Your task to perform on an android device: Go to battery settings Image 0: 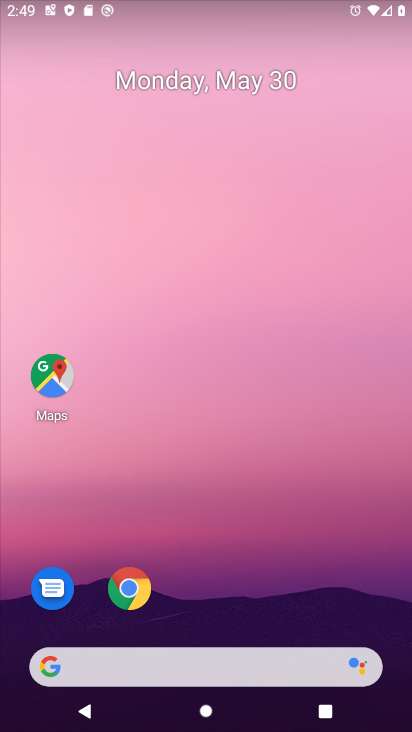
Step 0: drag from (359, 508) to (307, 85)
Your task to perform on an android device: Go to battery settings Image 1: 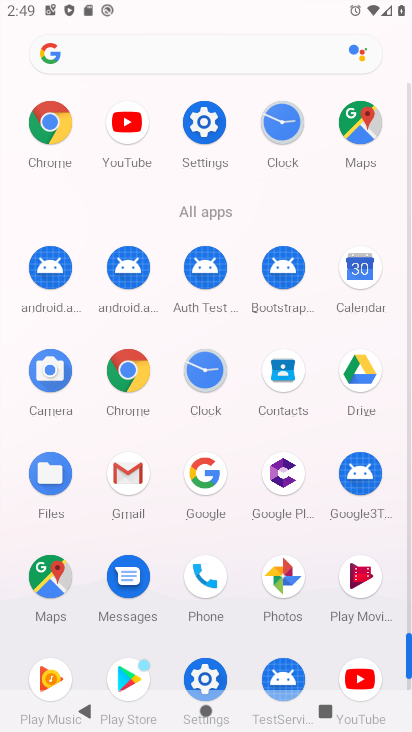
Step 1: click (205, 124)
Your task to perform on an android device: Go to battery settings Image 2: 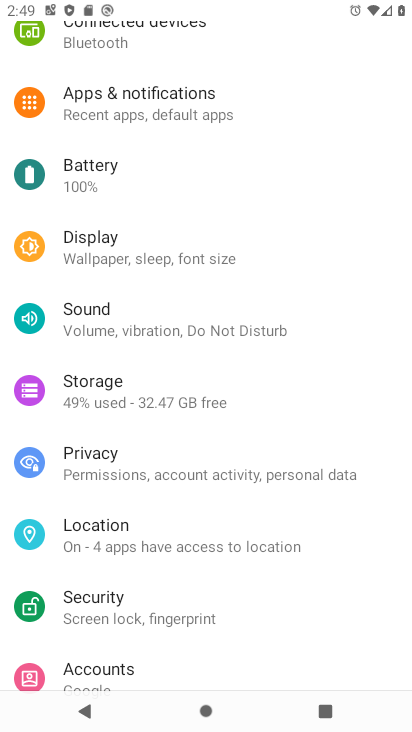
Step 2: click (104, 186)
Your task to perform on an android device: Go to battery settings Image 3: 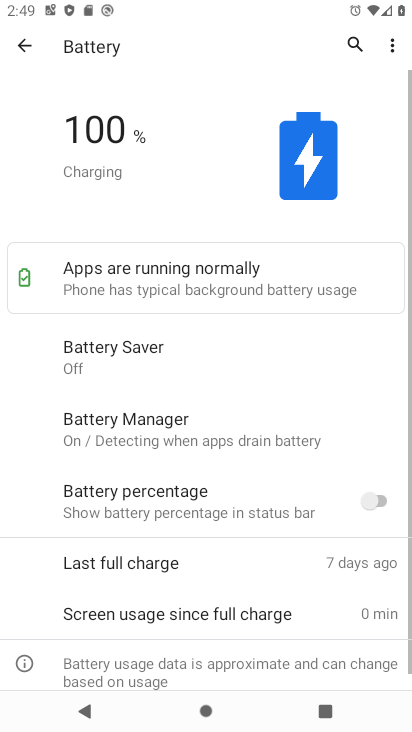
Step 3: task complete